Your task to perform on an android device: install app "Google Play Music" Image 0: 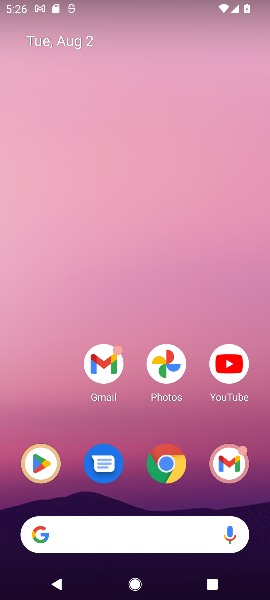
Step 0: press home button
Your task to perform on an android device: install app "Google Play Music" Image 1: 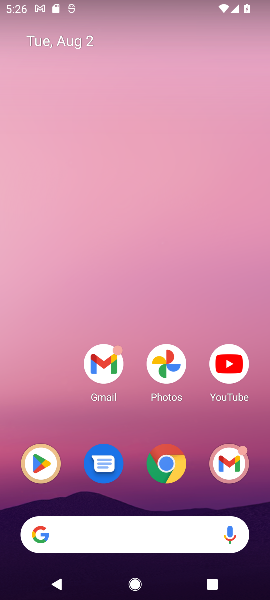
Step 1: click (42, 460)
Your task to perform on an android device: install app "Google Play Music" Image 2: 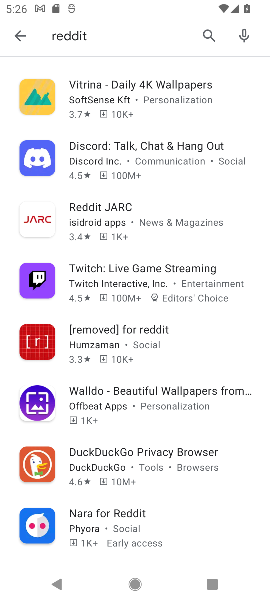
Step 2: click (210, 34)
Your task to perform on an android device: install app "Google Play Music" Image 3: 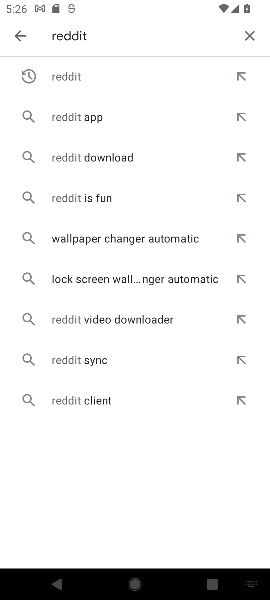
Step 3: click (248, 34)
Your task to perform on an android device: install app "Google Play Music" Image 4: 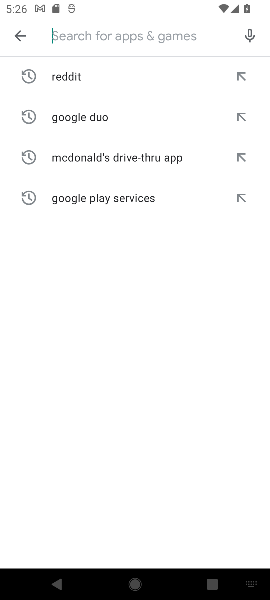
Step 4: type "Google Play Music"
Your task to perform on an android device: install app "Google Play Music" Image 5: 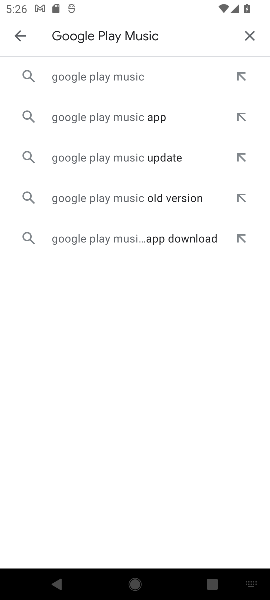
Step 5: click (127, 72)
Your task to perform on an android device: install app "Google Play Music" Image 6: 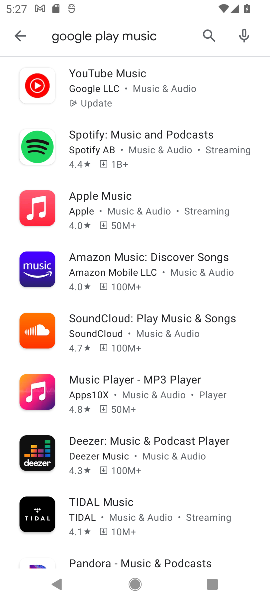
Step 6: task complete